Your task to perform on an android device: change keyboard looks Image 0: 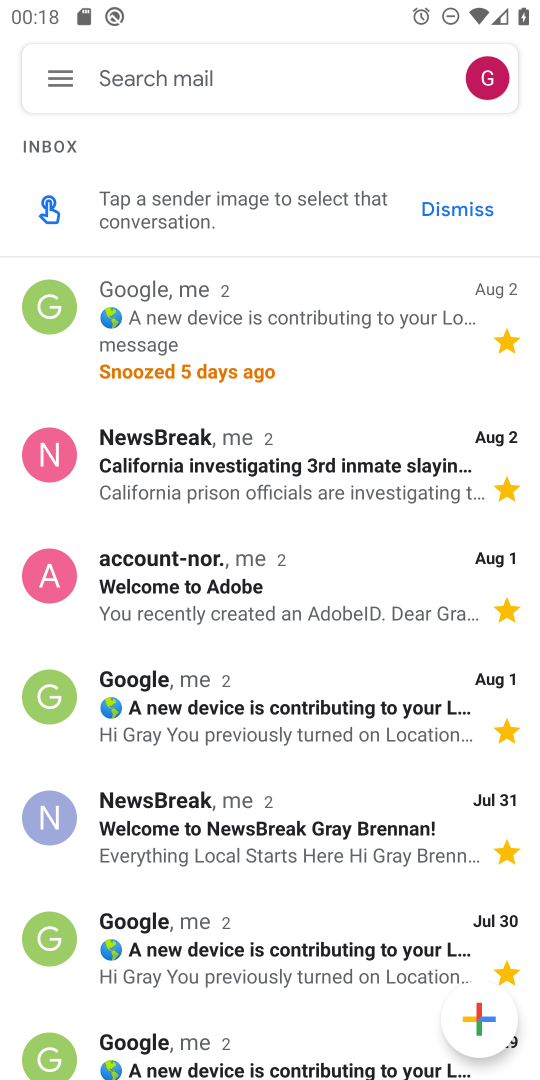
Step 0: press home button
Your task to perform on an android device: change keyboard looks Image 1: 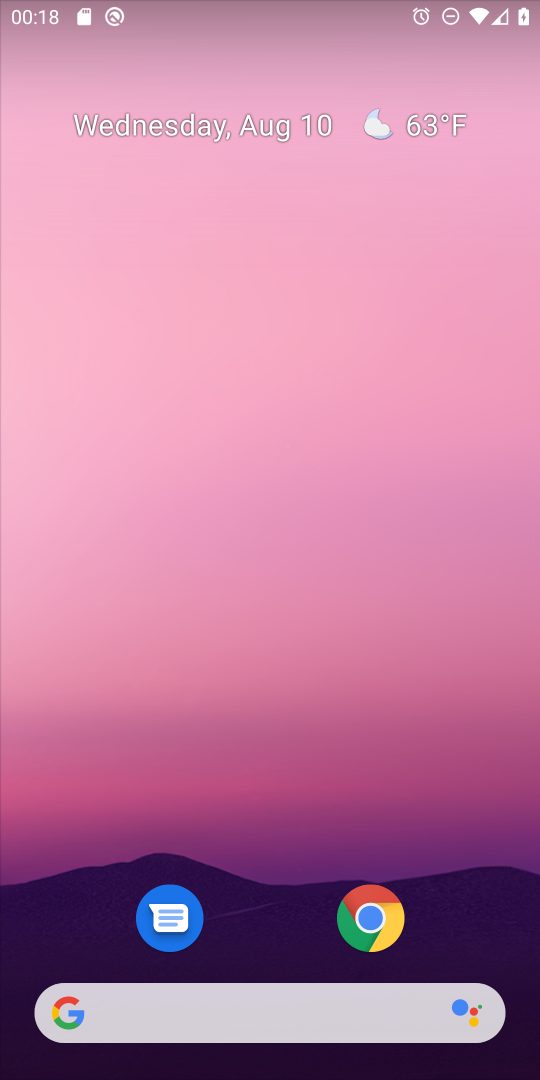
Step 1: drag from (279, 913) to (233, 6)
Your task to perform on an android device: change keyboard looks Image 2: 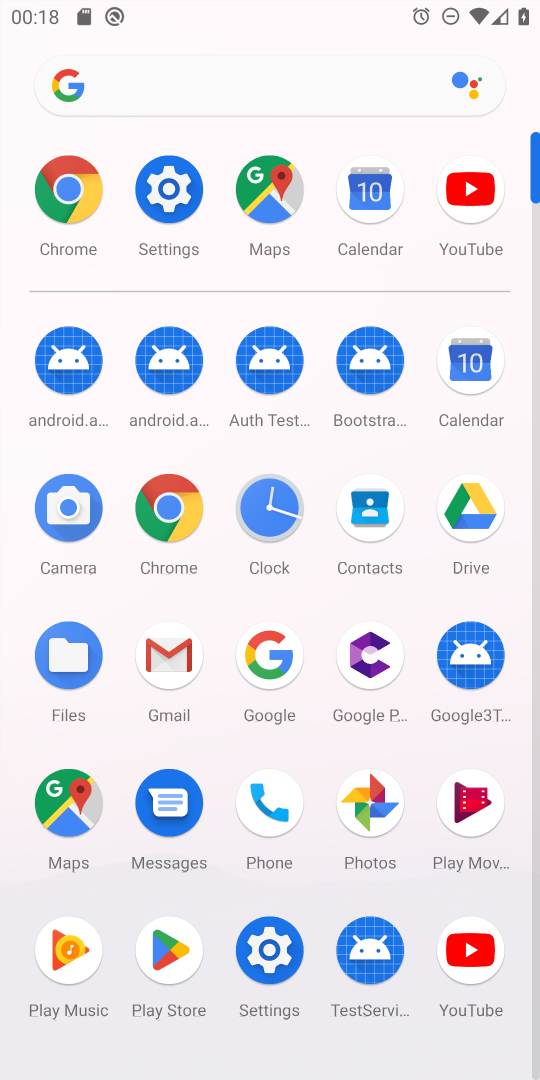
Step 2: click (170, 189)
Your task to perform on an android device: change keyboard looks Image 3: 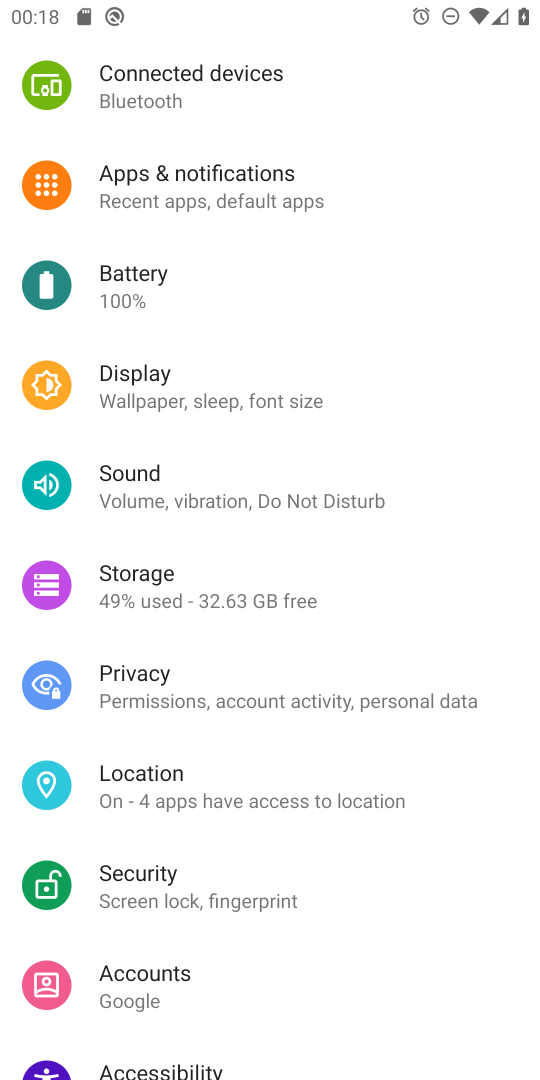
Step 3: drag from (238, 973) to (314, 222)
Your task to perform on an android device: change keyboard looks Image 4: 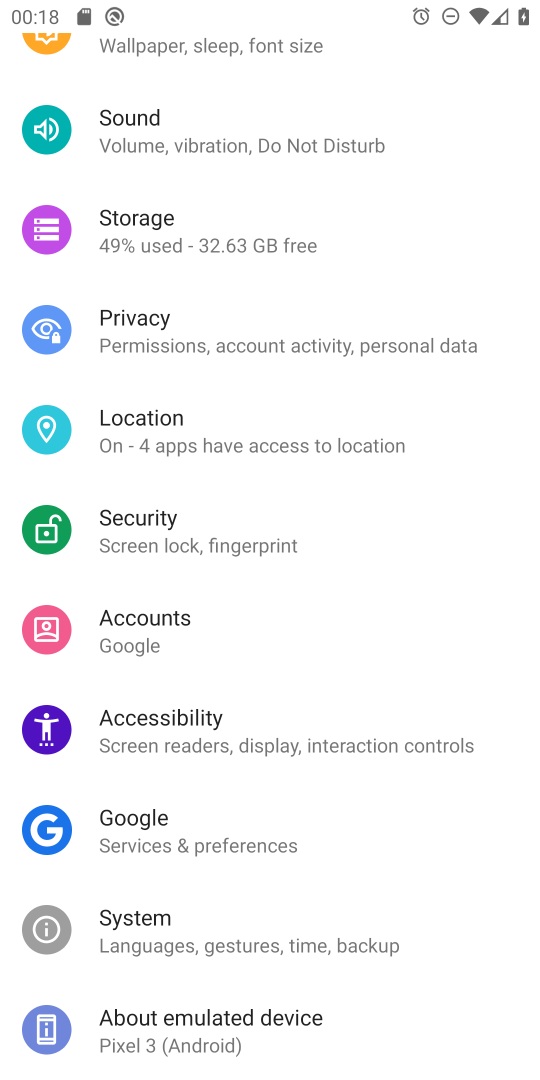
Step 4: click (124, 949)
Your task to perform on an android device: change keyboard looks Image 5: 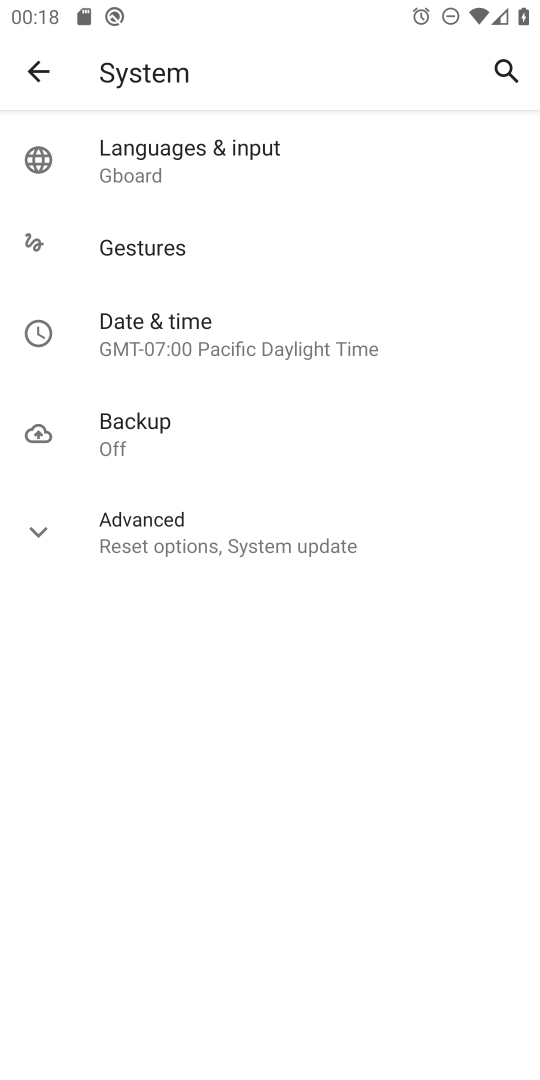
Step 5: click (142, 164)
Your task to perform on an android device: change keyboard looks Image 6: 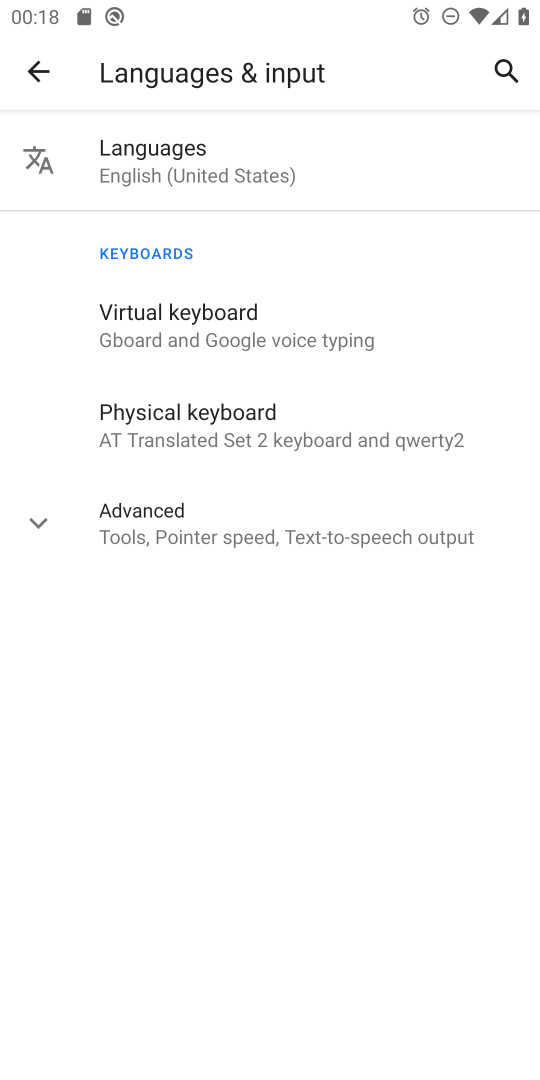
Step 6: click (143, 340)
Your task to perform on an android device: change keyboard looks Image 7: 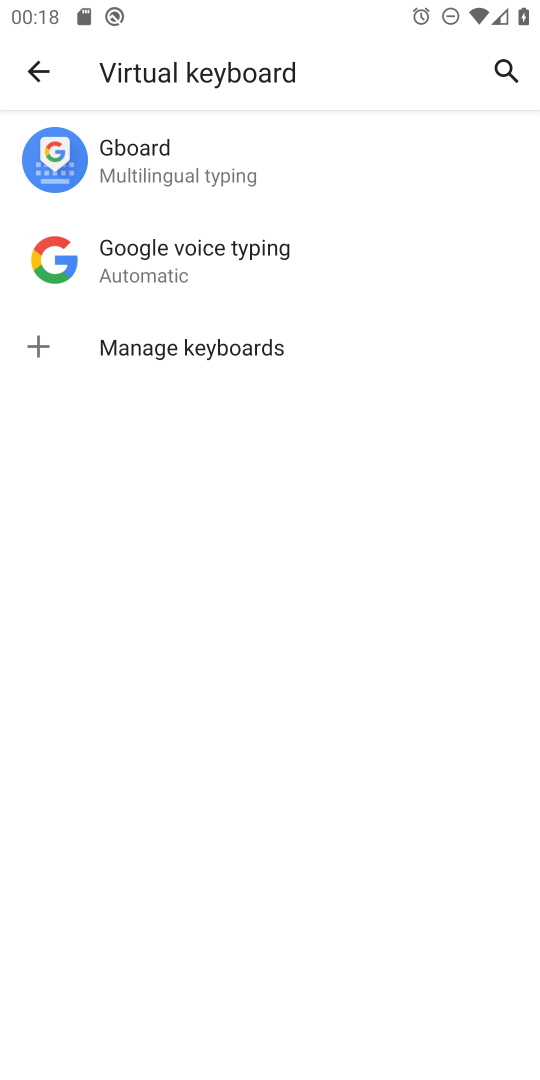
Step 7: click (146, 171)
Your task to perform on an android device: change keyboard looks Image 8: 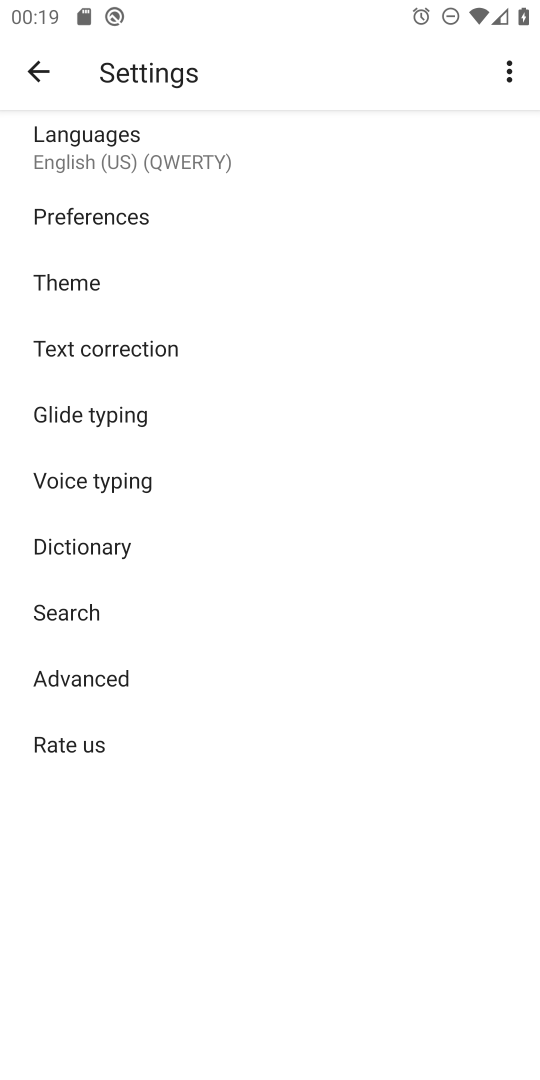
Step 8: click (82, 274)
Your task to perform on an android device: change keyboard looks Image 9: 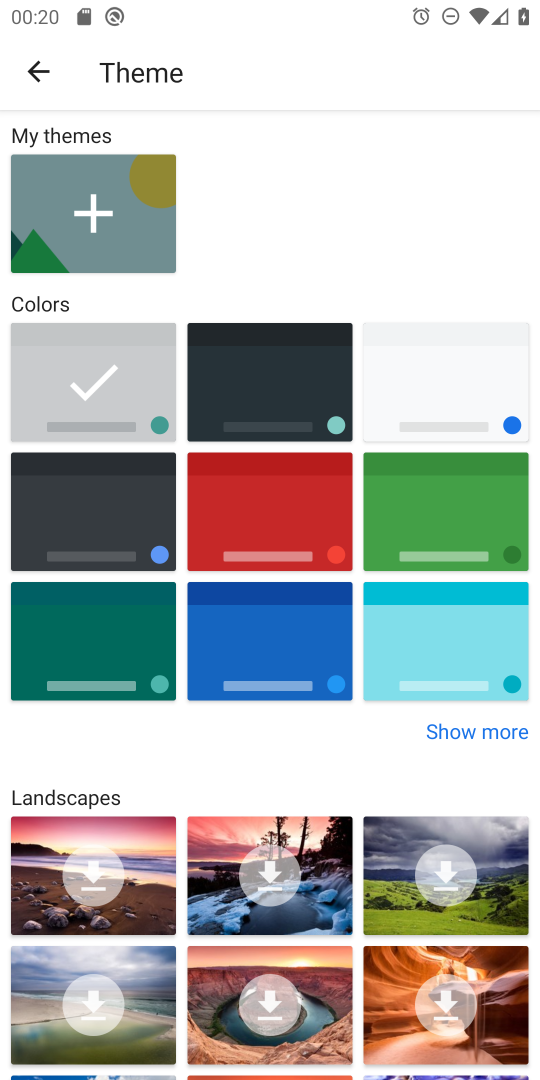
Step 9: click (459, 389)
Your task to perform on an android device: change keyboard looks Image 10: 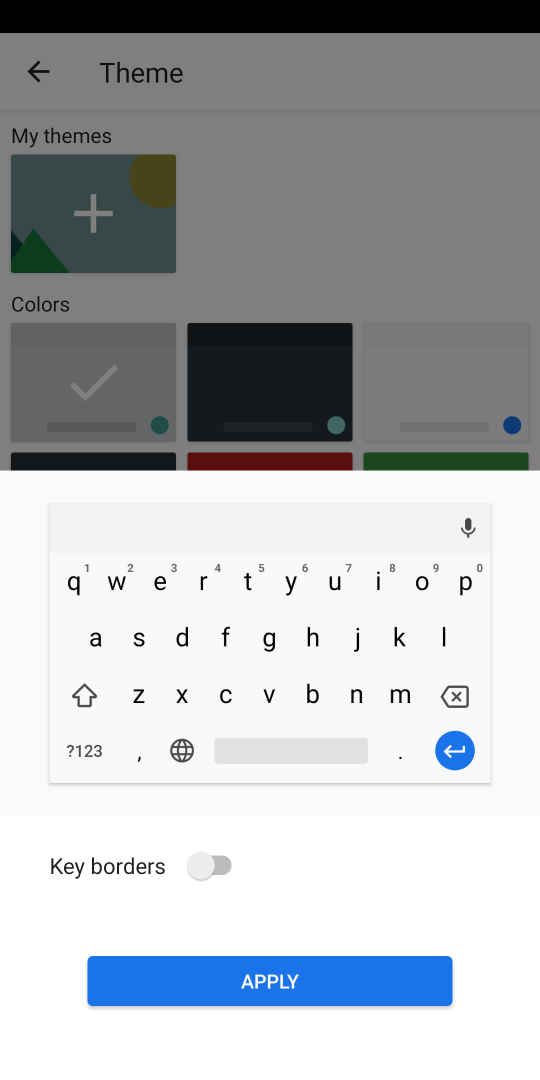
Step 10: click (283, 971)
Your task to perform on an android device: change keyboard looks Image 11: 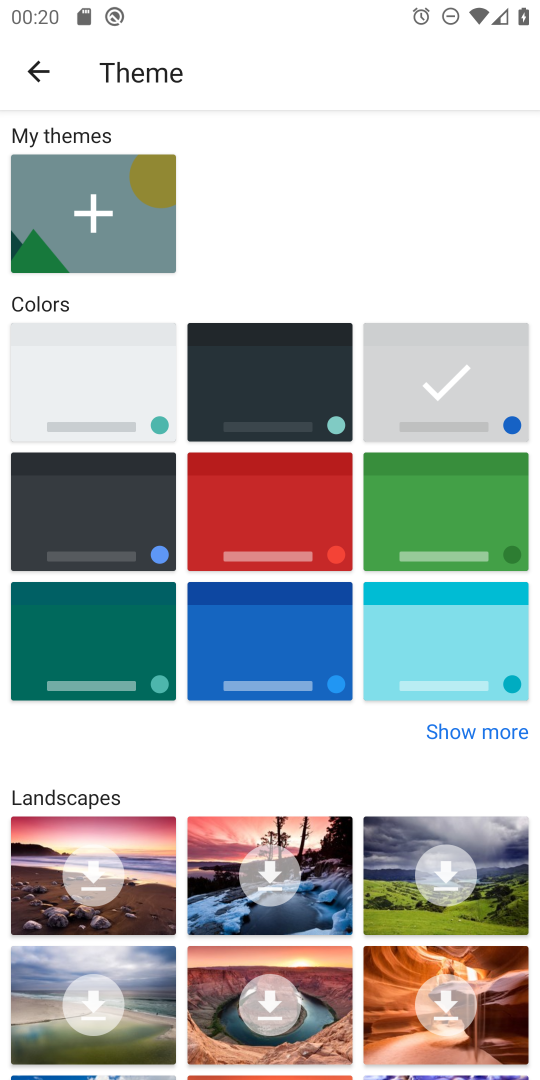
Step 11: task complete